Your task to perform on an android device: Open the phone app and click the voicemail tab. Image 0: 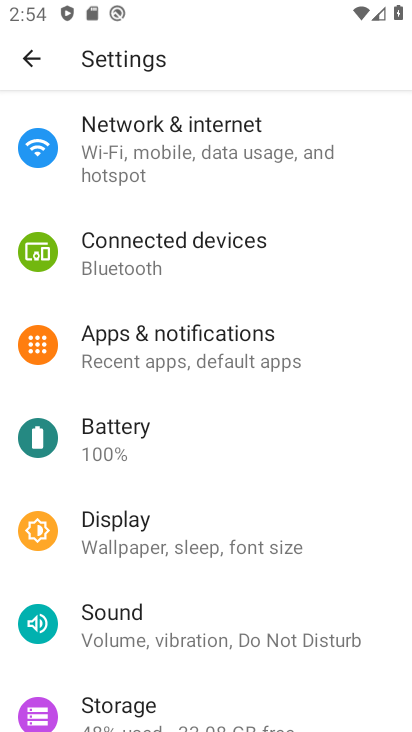
Step 0: press home button
Your task to perform on an android device: Open the phone app and click the voicemail tab. Image 1: 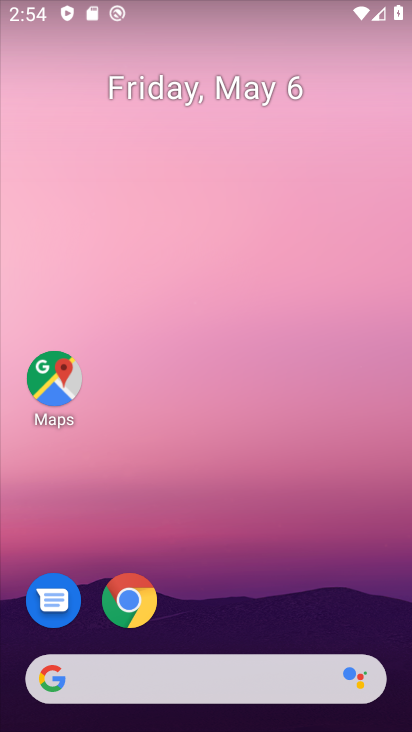
Step 1: drag from (220, 662) to (255, 210)
Your task to perform on an android device: Open the phone app and click the voicemail tab. Image 2: 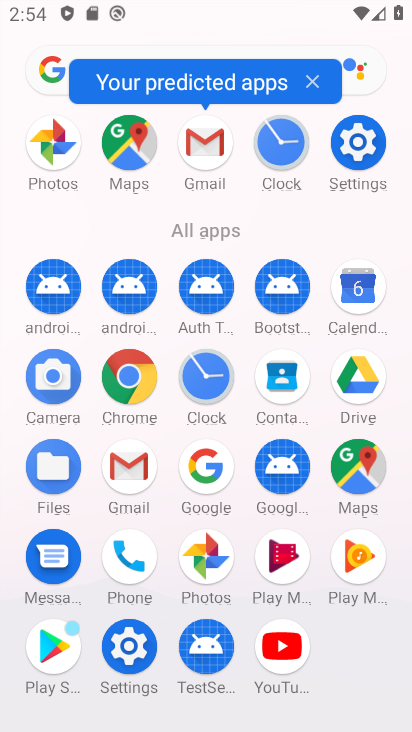
Step 2: click (131, 571)
Your task to perform on an android device: Open the phone app and click the voicemail tab. Image 3: 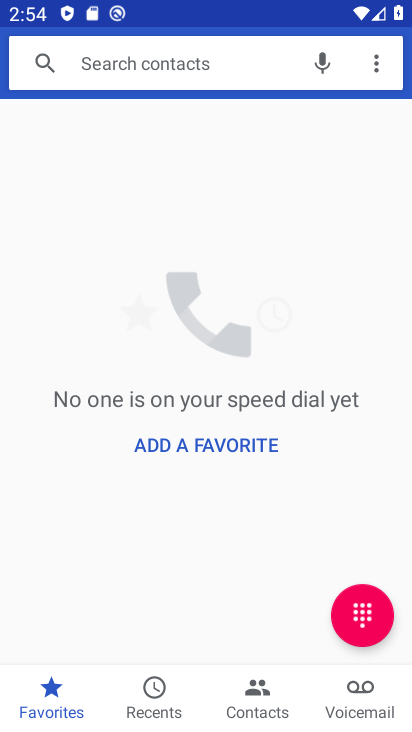
Step 3: click (363, 701)
Your task to perform on an android device: Open the phone app and click the voicemail tab. Image 4: 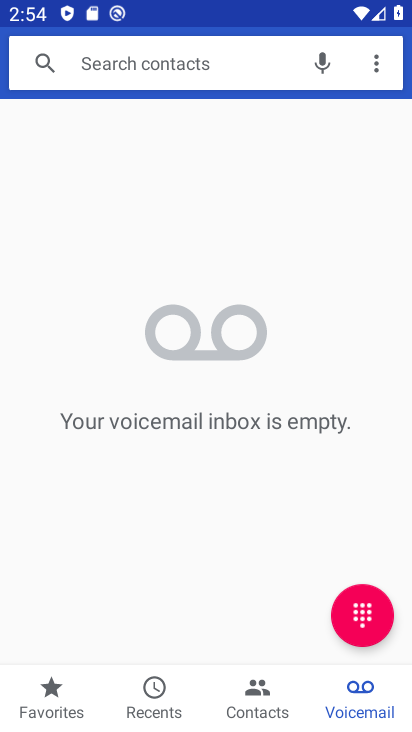
Step 4: task complete